Your task to perform on an android device: Open the calculator Image 0: 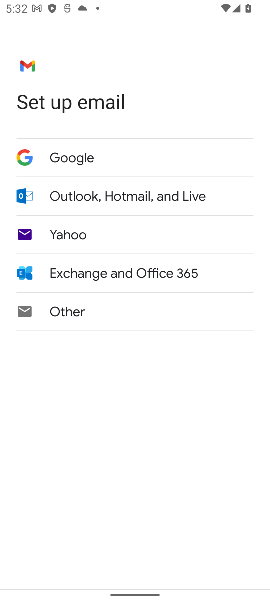
Step 0: press home button
Your task to perform on an android device: Open the calculator Image 1: 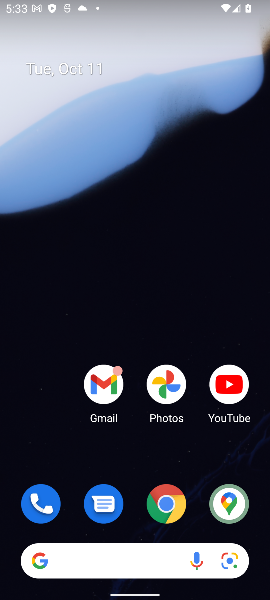
Step 1: task complete